Your task to perform on an android device: Go to eBay Image 0: 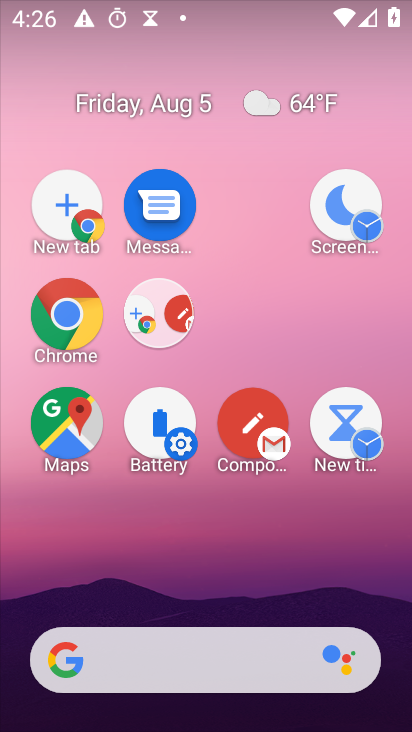
Step 0: drag from (243, 593) to (220, 440)
Your task to perform on an android device: Go to eBay Image 1: 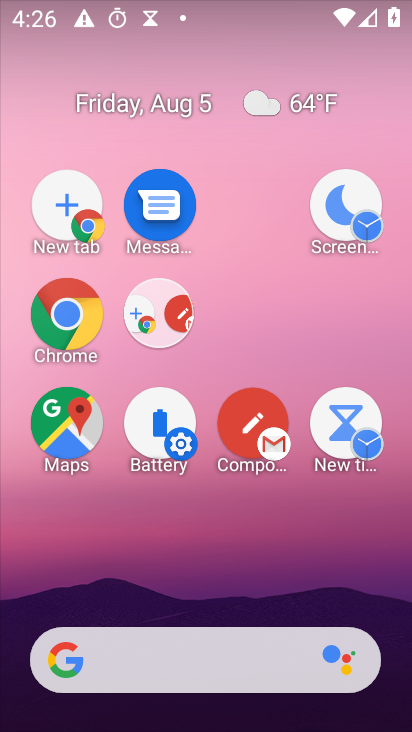
Step 1: drag from (219, 594) to (202, 477)
Your task to perform on an android device: Go to eBay Image 2: 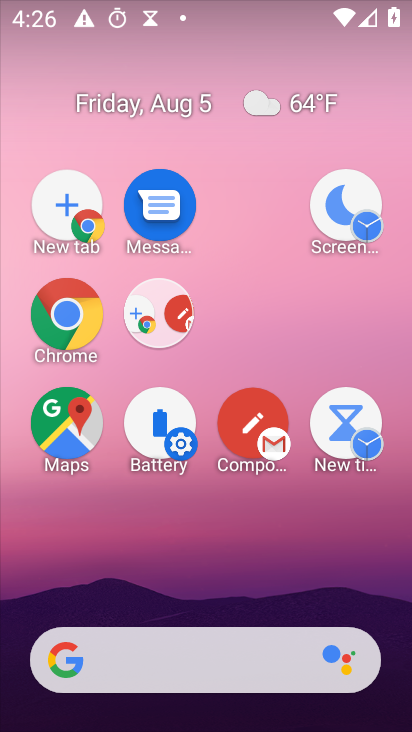
Step 2: drag from (216, 557) to (163, 1)
Your task to perform on an android device: Go to eBay Image 3: 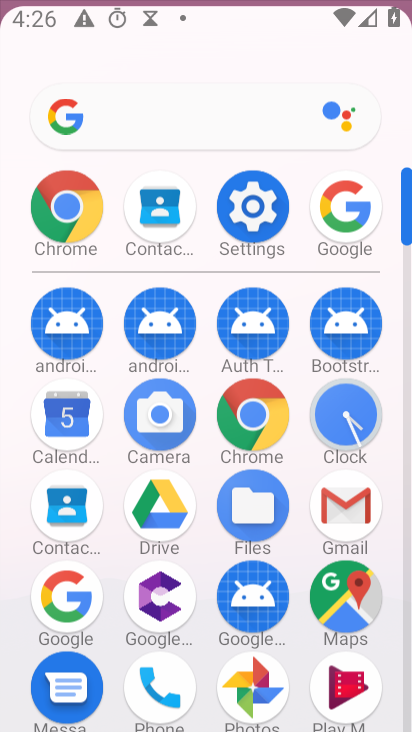
Step 3: click (229, 317)
Your task to perform on an android device: Go to eBay Image 4: 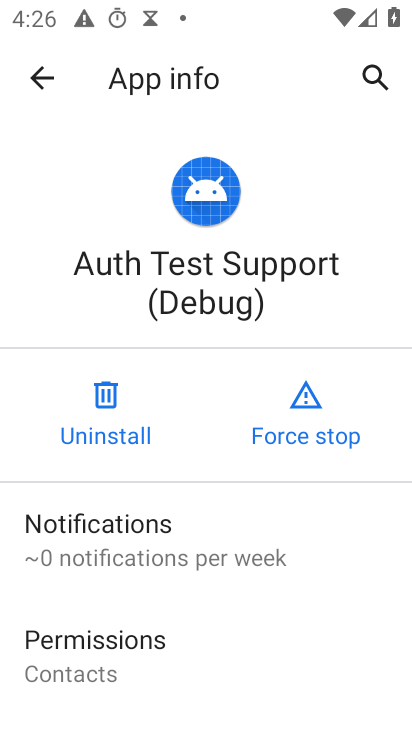
Step 4: click (35, 71)
Your task to perform on an android device: Go to eBay Image 5: 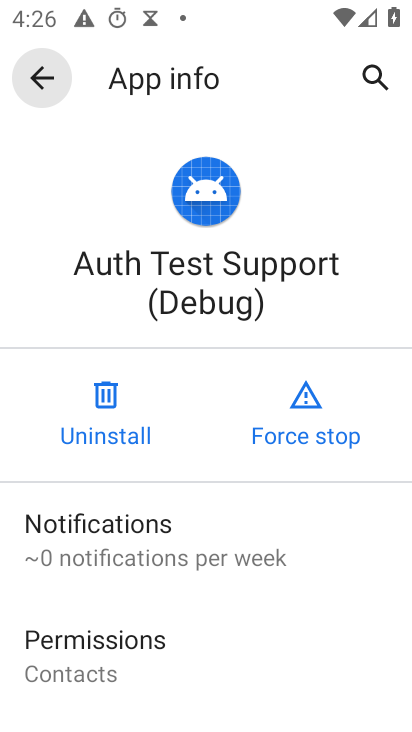
Step 5: click (40, 71)
Your task to perform on an android device: Go to eBay Image 6: 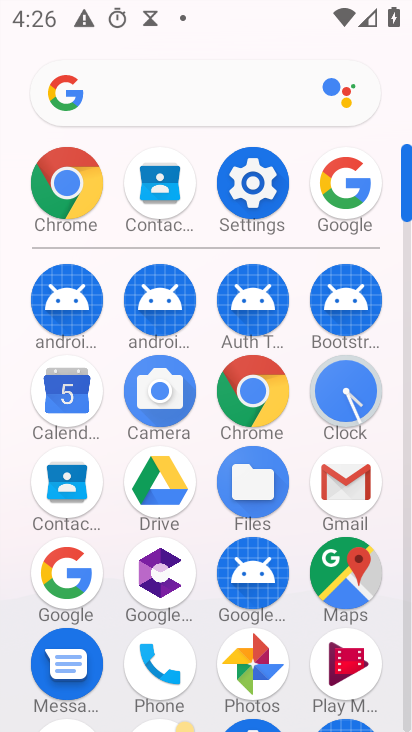
Step 6: click (241, 405)
Your task to perform on an android device: Go to eBay Image 7: 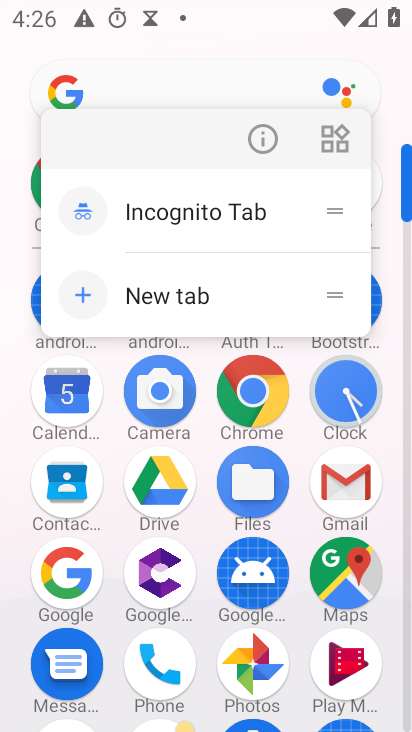
Step 7: click (246, 400)
Your task to perform on an android device: Go to eBay Image 8: 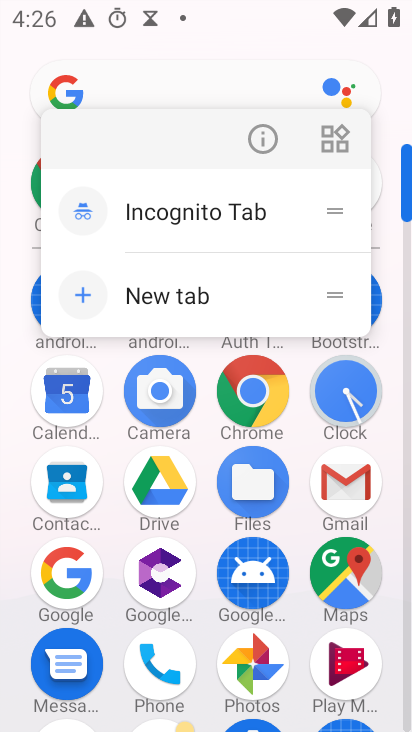
Step 8: click (132, 280)
Your task to perform on an android device: Go to eBay Image 9: 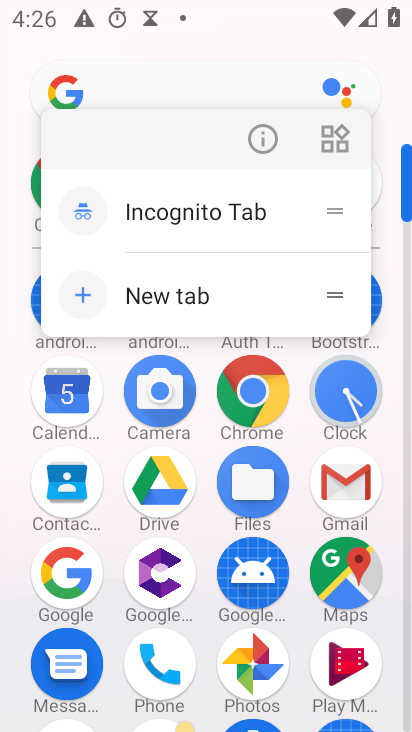
Step 9: click (136, 290)
Your task to perform on an android device: Go to eBay Image 10: 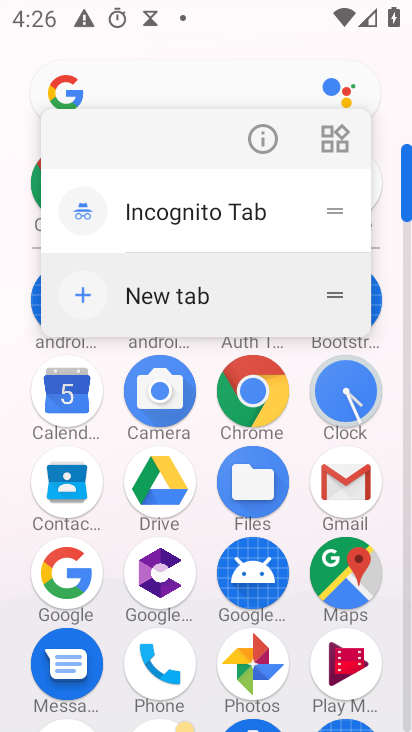
Step 10: click (137, 291)
Your task to perform on an android device: Go to eBay Image 11: 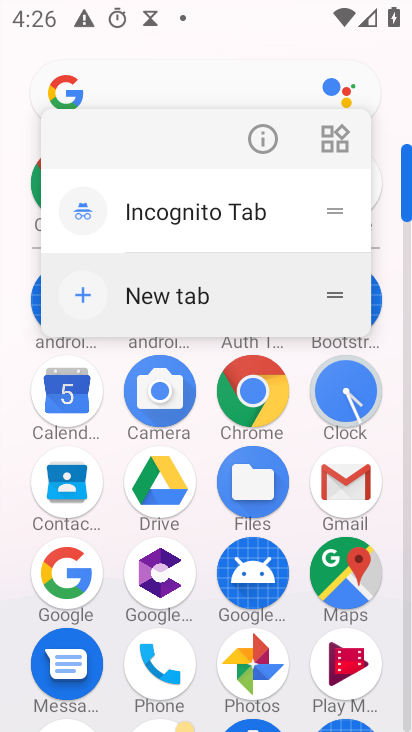
Step 11: click (146, 288)
Your task to perform on an android device: Go to eBay Image 12: 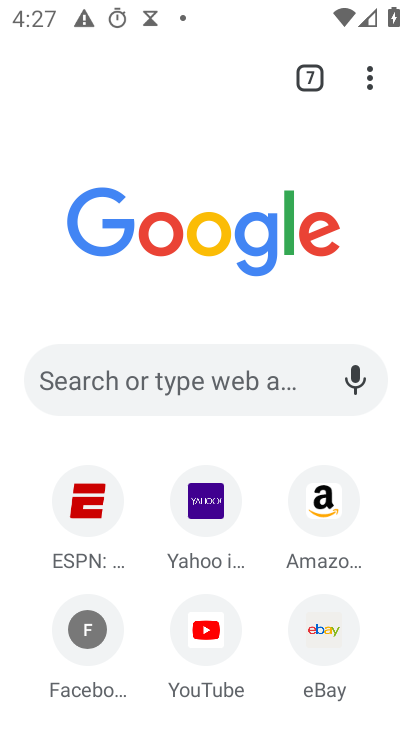
Step 12: click (328, 641)
Your task to perform on an android device: Go to eBay Image 13: 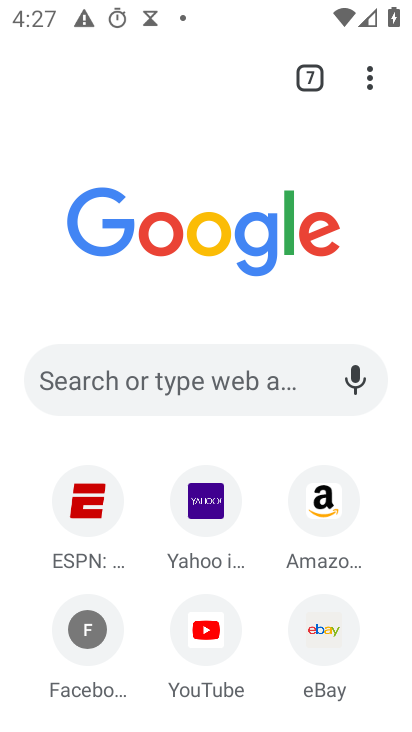
Step 13: click (328, 641)
Your task to perform on an android device: Go to eBay Image 14: 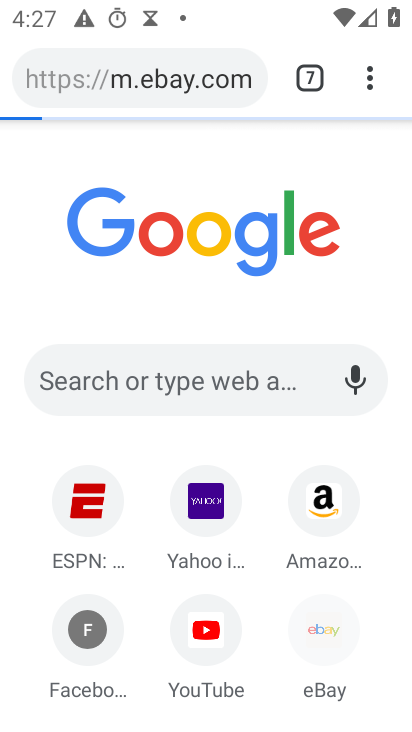
Step 14: click (341, 644)
Your task to perform on an android device: Go to eBay Image 15: 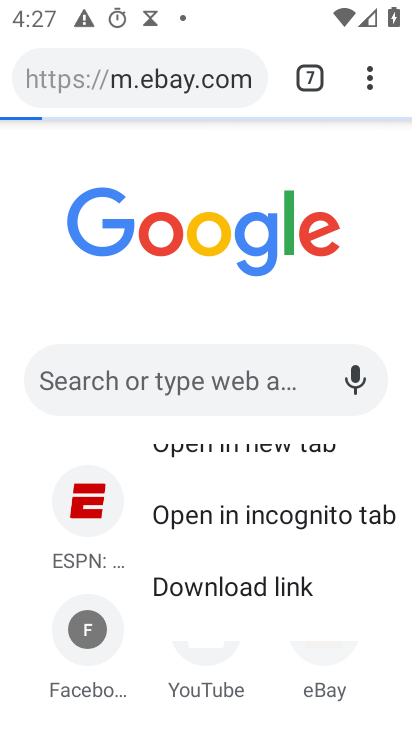
Step 15: click (343, 644)
Your task to perform on an android device: Go to eBay Image 16: 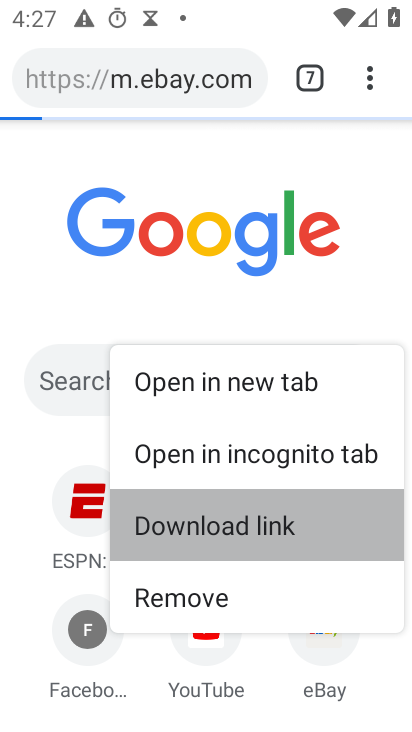
Step 16: click (325, 615)
Your task to perform on an android device: Go to eBay Image 17: 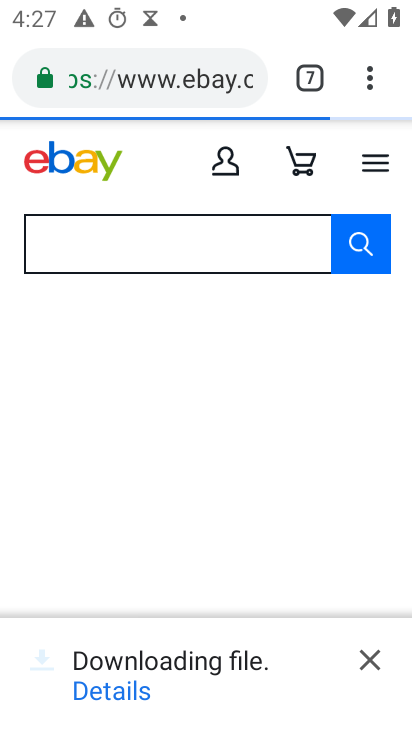
Step 17: task complete